Your task to perform on an android device: remove spam from my inbox in the gmail app Image 0: 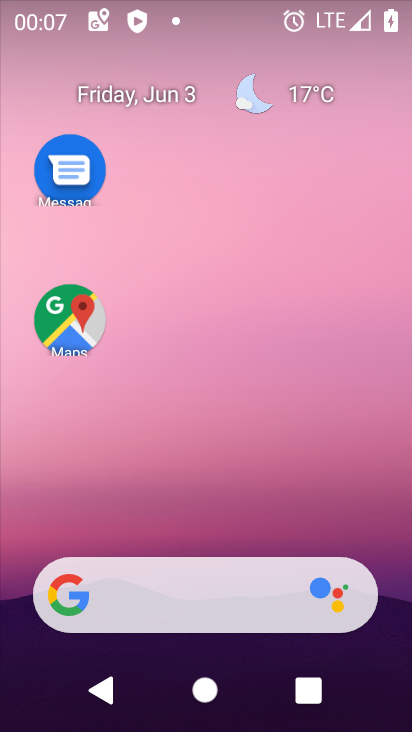
Step 0: press home button
Your task to perform on an android device: remove spam from my inbox in the gmail app Image 1: 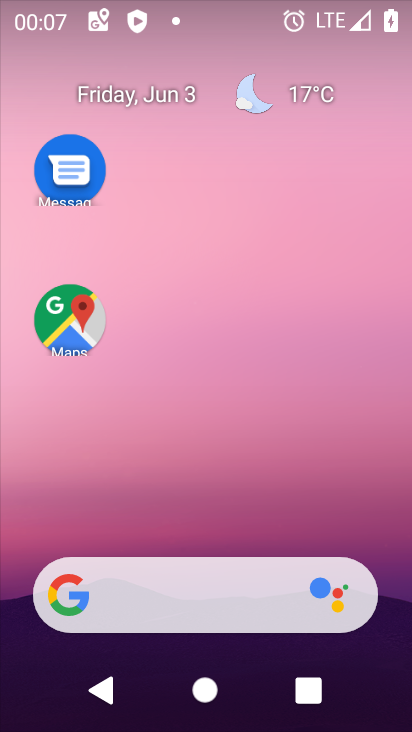
Step 1: drag from (339, 407) to (321, 279)
Your task to perform on an android device: remove spam from my inbox in the gmail app Image 2: 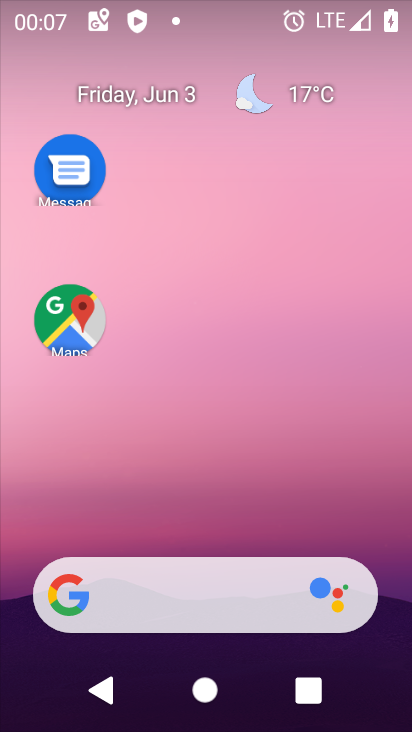
Step 2: drag from (386, 686) to (343, 156)
Your task to perform on an android device: remove spam from my inbox in the gmail app Image 3: 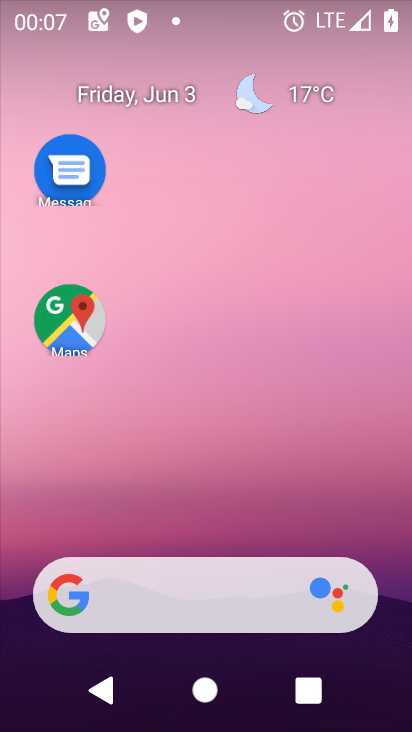
Step 3: drag from (312, 729) to (308, 105)
Your task to perform on an android device: remove spam from my inbox in the gmail app Image 4: 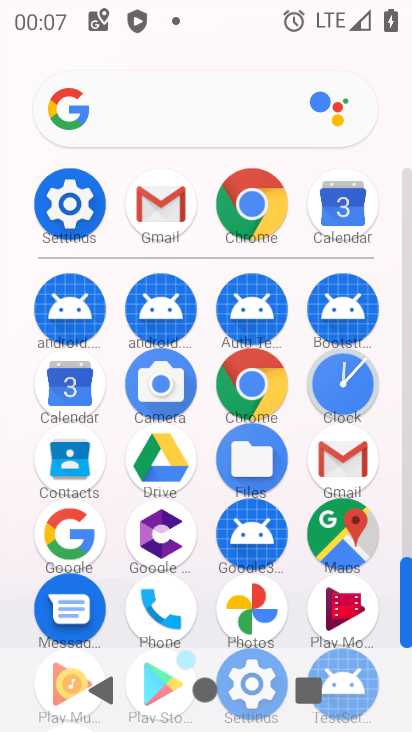
Step 4: click (347, 478)
Your task to perform on an android device: remove spam from my inbox in the gmail app Image 5: 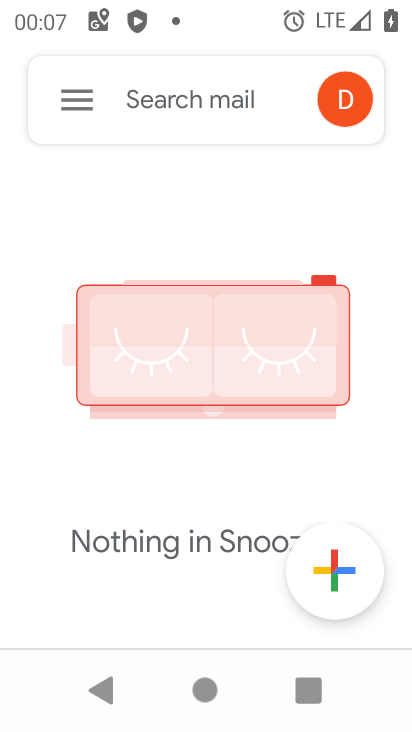
Step 5: click (85, 100)
Your task to perform on an android device: remove spam from my inbox in the gmail app Image 6: 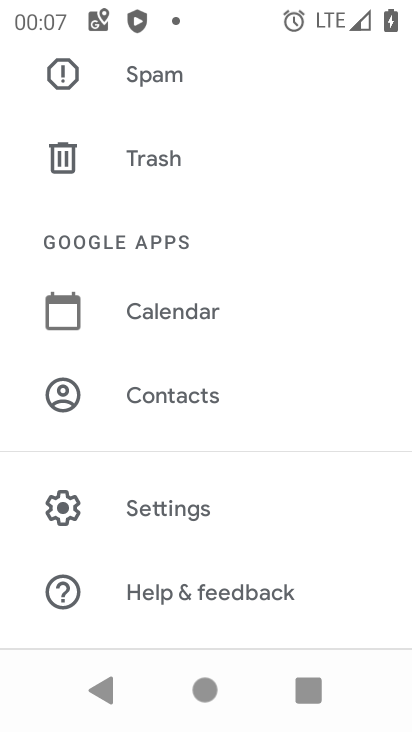
Step 6: task complete